Your task to perform on an android device: turn off priority inbox in the gmail app Image 0: 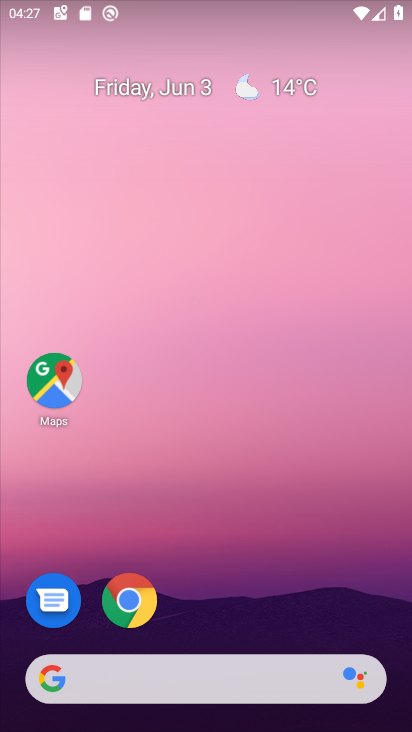
Step 0: press home button
Your task to perform on an android device: turn off priority inbox in the gmail app Image 1: 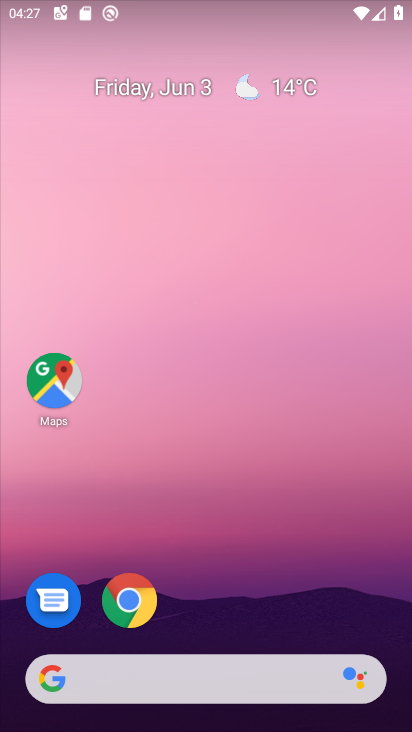
Step 1: click (244, 222)
Your task to perform on an android device: turn off priority inbox in the gmail app Image 2: 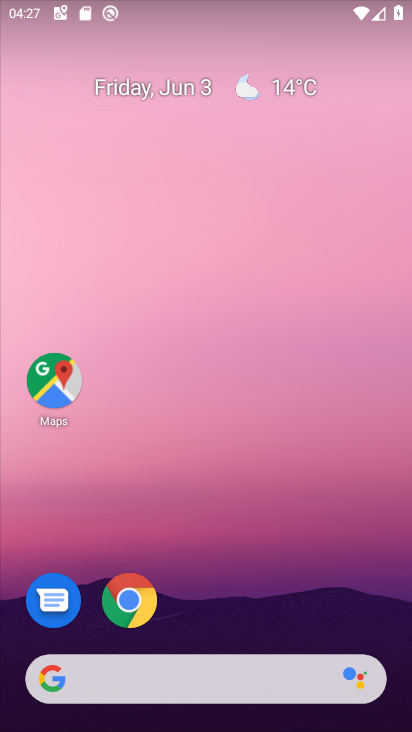
Step 2: drag from (289, 564) to (275, 116)
Your task to perform on an android device: turn off priority inbox in the gmail app Image 3: 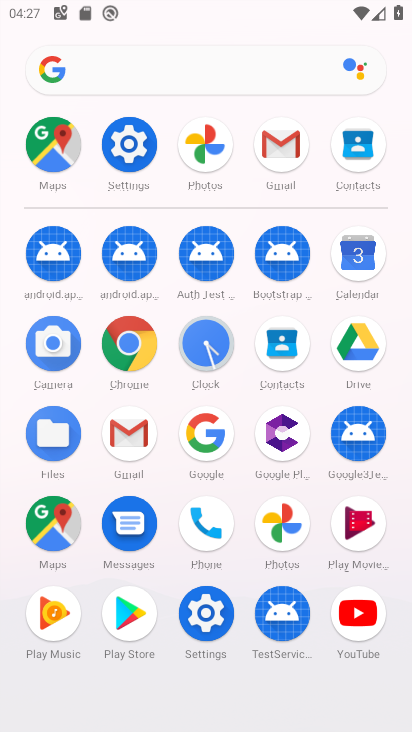
Step 3: click (292, 139)
Your task to perform on an android device: turn off priority inbox in the gmail app Image 4: 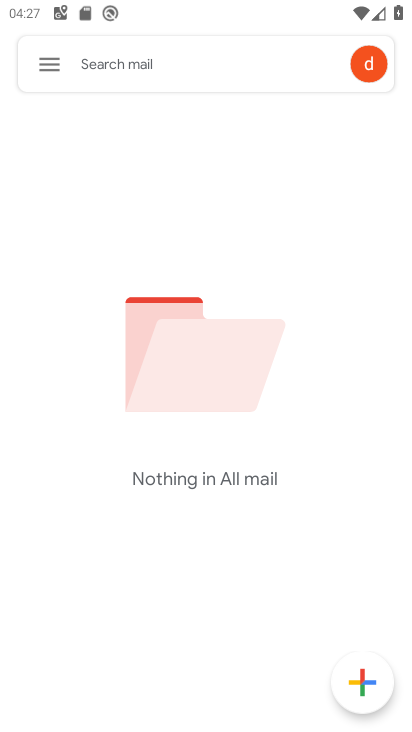
Step 4: click (53, 61)
Your task to perform on an android device: turn off priority inbox in the gmail app Image 5: 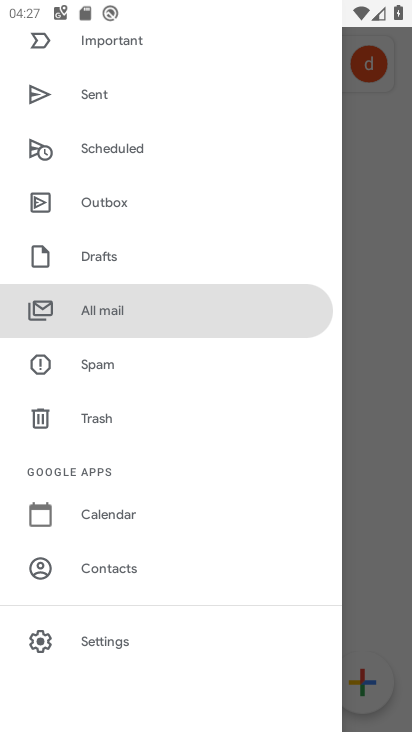
Step 5: drag from (142, 589) to (204, 187)
Your task to perform on an android device: turn off priority inbox in the gmail app Image 6: 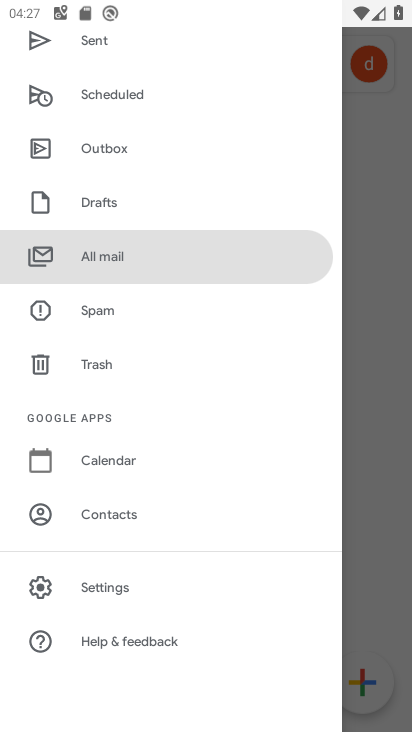
Step 6: click (103, 584)
Your task to perform on an android device: turn off priority inbox in the gmail app Image 7: 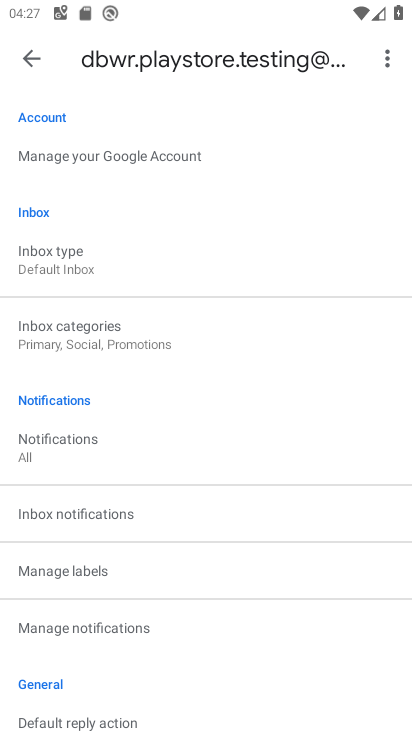
Step 7: click (68, 253)
Your task to perform on an android device: turn off priority inbox in the gmail app Image 8: 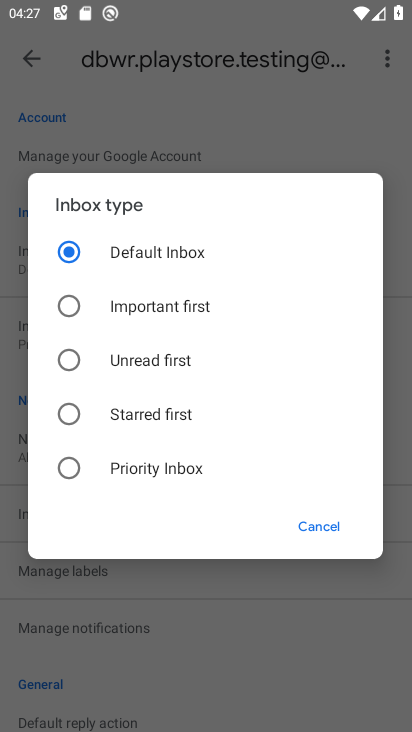
Step 8: task complete